Your task to perform on an android device: turn on wifi Image 0: 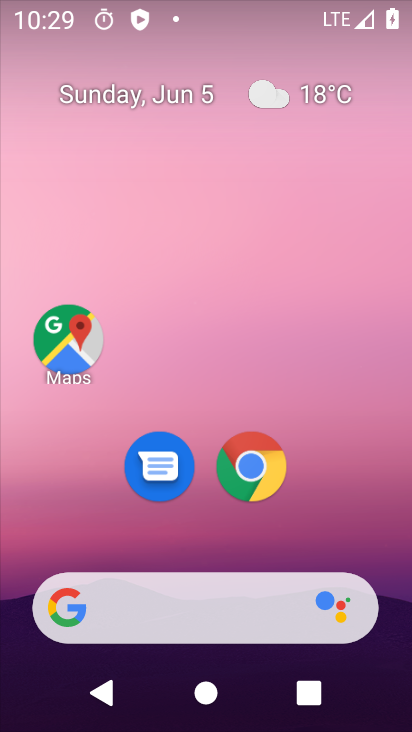
Step 0: drag from (343, 479) to (241, 19)
Your task to perform on an android device: turn on wifi Image 1: 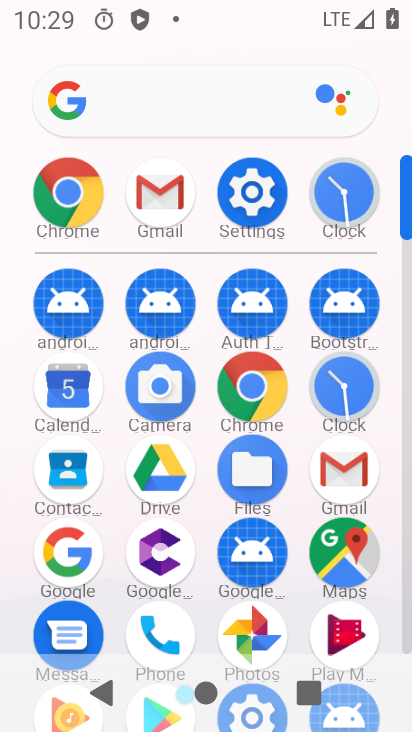
Step 1: click (252, 192)
Your task to perform on an android device: turn on wifi Image 2: 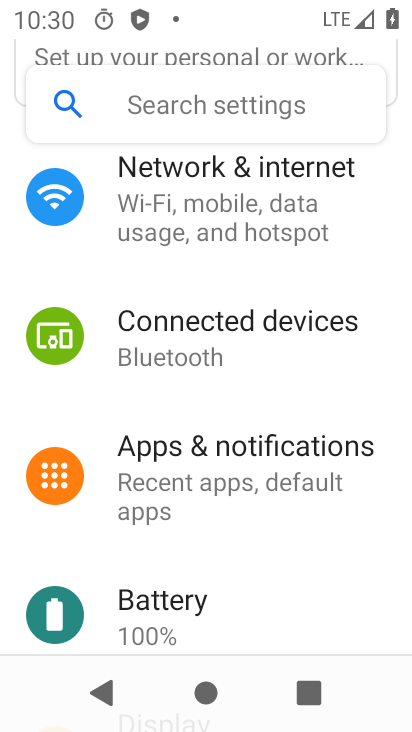
Step 2: drag from (237, 252) to (265, 337)
Your task to perform on an android device: turn on wifi Image 3: 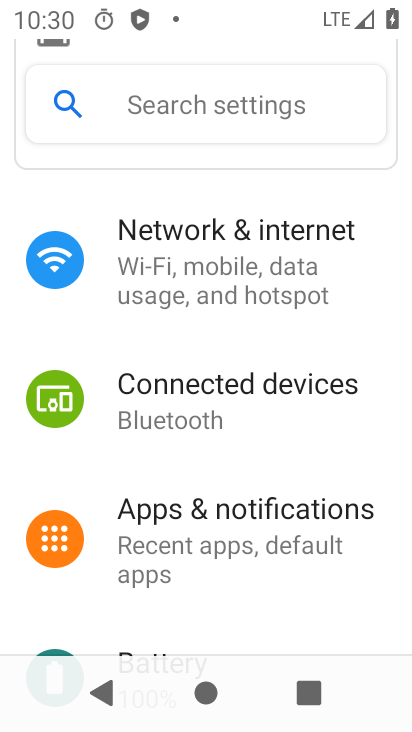
Step 3: click (229, 248)
Your task to perform on an android device: turn on wifi Image 4: 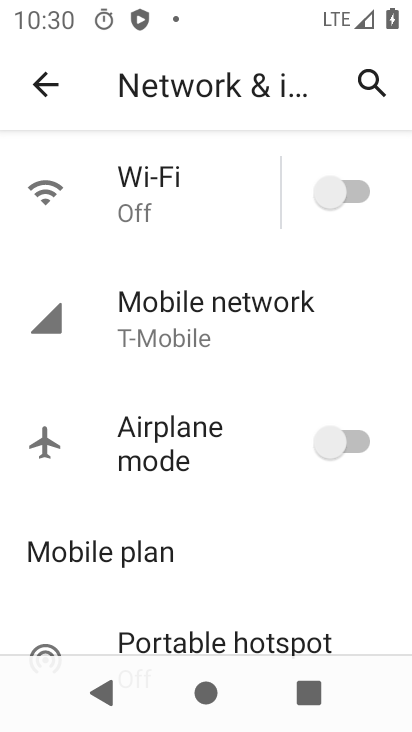
Step 4: click (325, 184)
Your task to perform on an android device: turn on wifi Image 5: 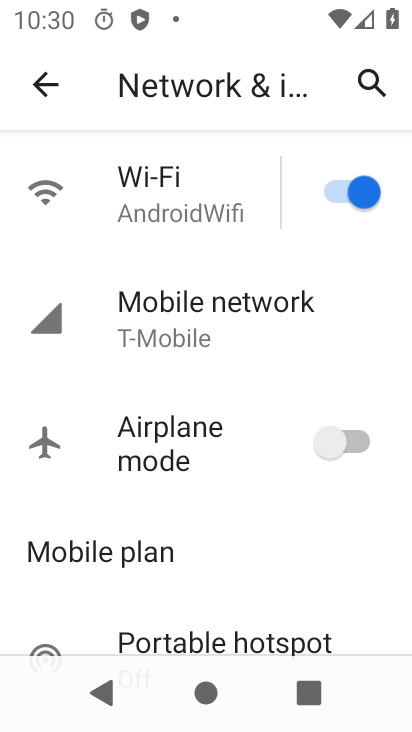
Step 5: task complete